Your task to perform on an android device: Open maps Image 0: 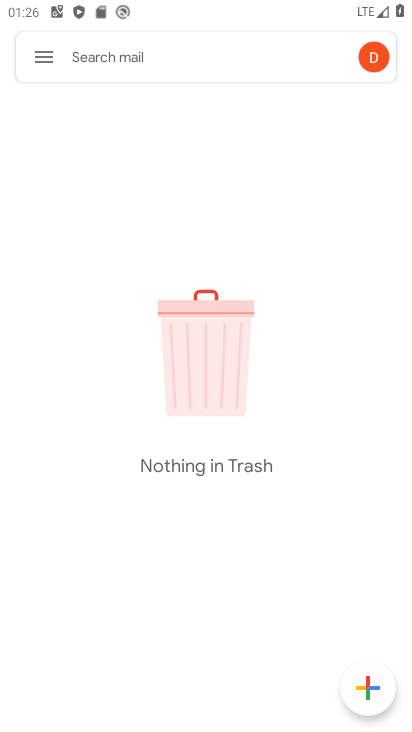
Step 0: press home button
Your task to perform on an android device: Open maps Image 1: 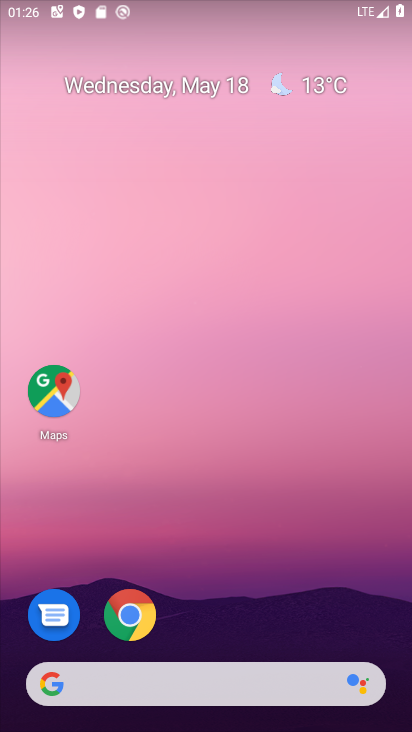
Step 1: click (44, 385)
Your task to perform on an android device: Open maps Image 2: 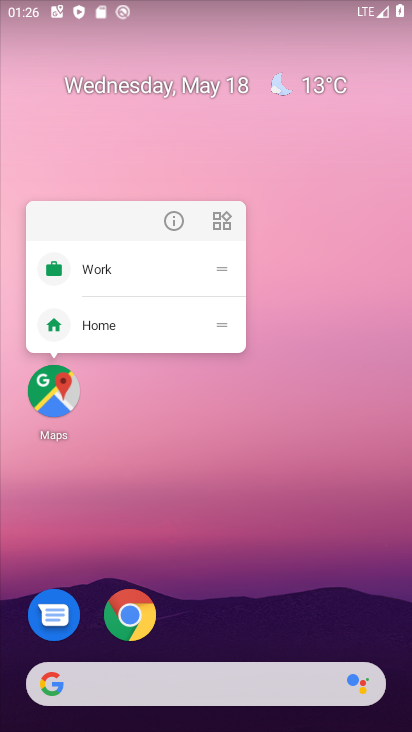
Step 2: click (60, 401)
Your task to perform on an android device: Open maps Image 3: 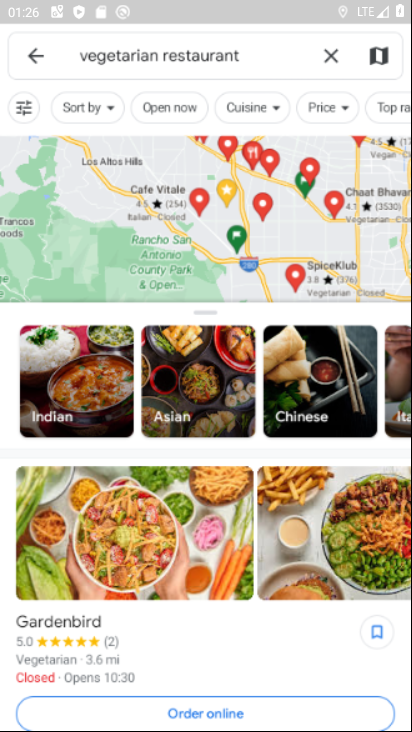
Step 3: click (42, 59)
Your task to perform on an android device: Open maps Image 4: 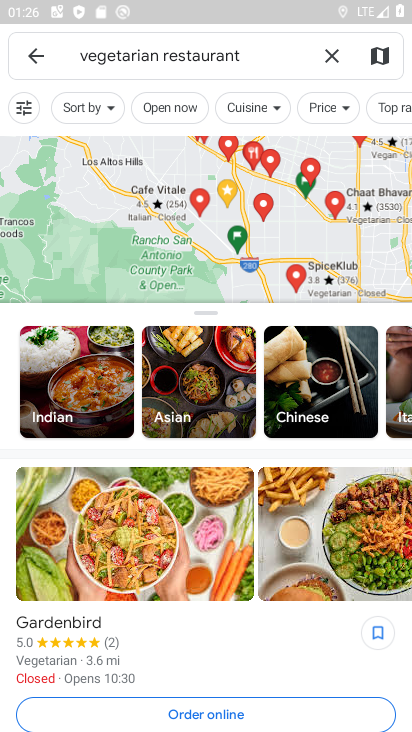
Step 4: click (29, 57)
Your task to perform on an android device: Open maps Image 5: 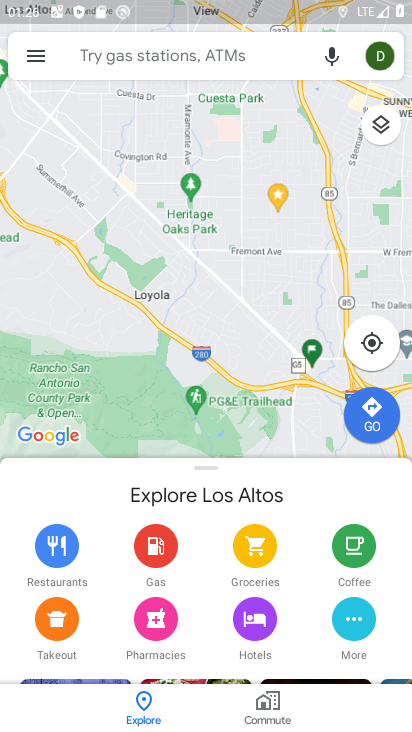
Step 5: task complete